Your task to perform on an android device: snooze an email in the gmail app Image 0: 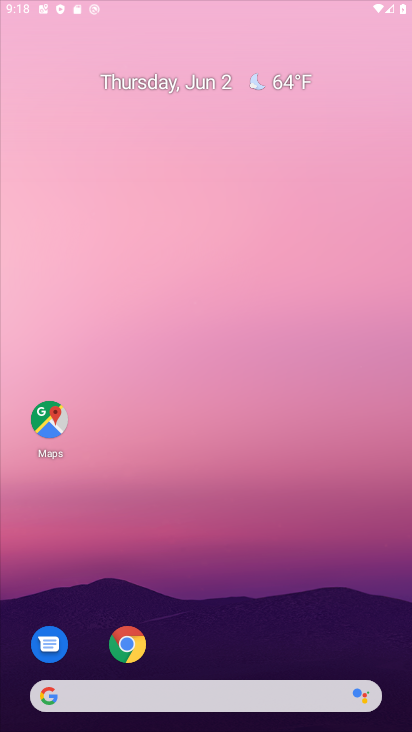
Step 0: press home button
Your task to perform on an android device: snooze an email in the gmail app Image 1: 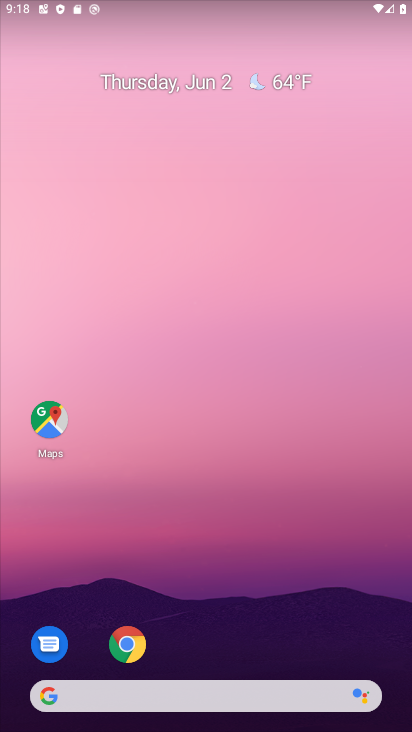
Step 1: drag from (216, 659) to (322, 2)
Your task to perform on an android device: snooze an email in the gmail app Image 2: 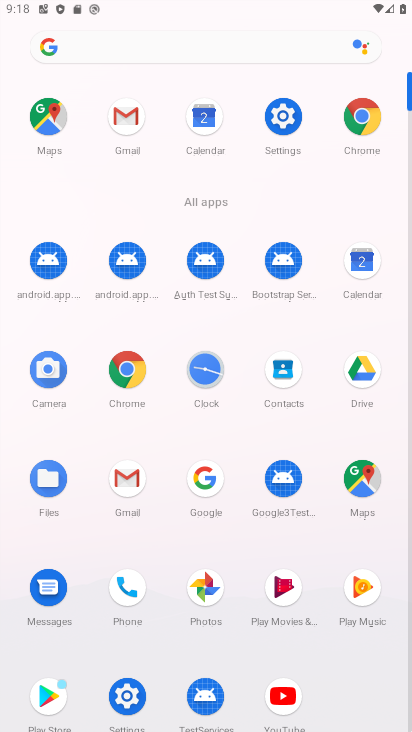
Step 2: click (138, 479)
Your task to perform on an android device: snooze an email in the gmail app Image 3: 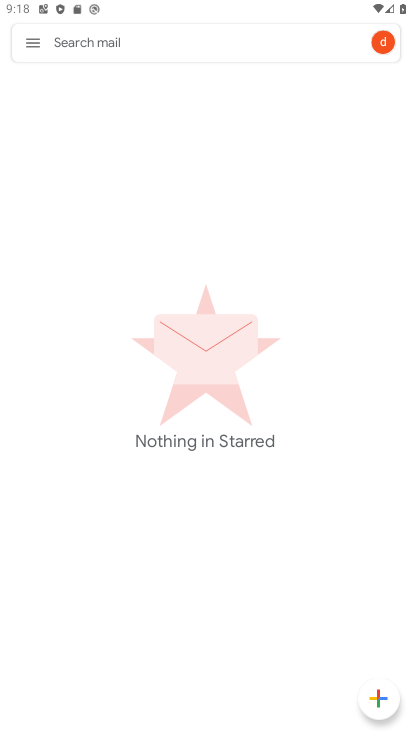
Step 3: task complete